Your task to perform on an android device: Go to Yahoo.com Image 0: 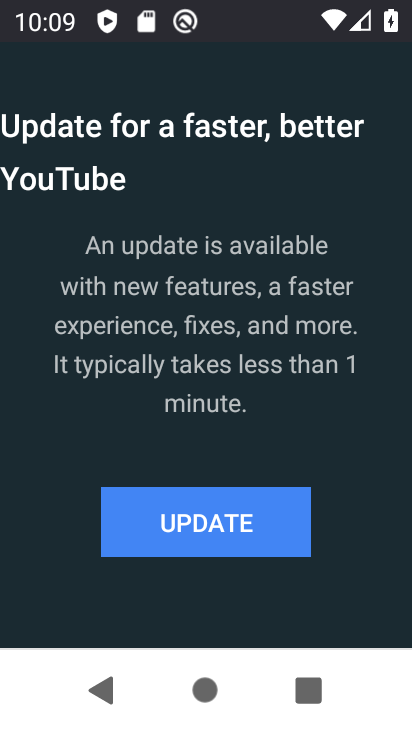
Step 0: press home button
Your task to perform on an android device: Go to Yahoo.com Image 1: 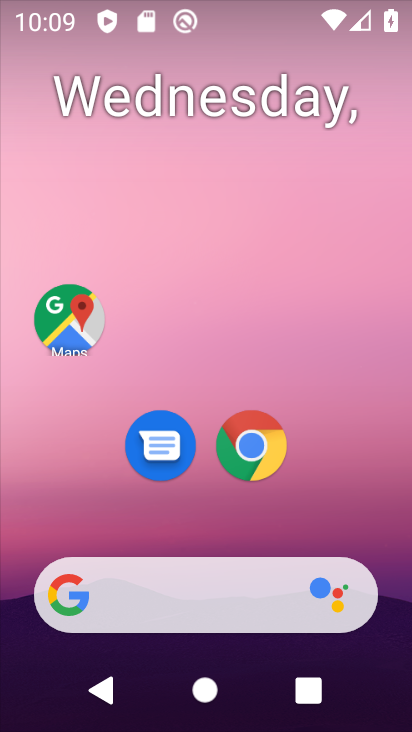
Step 1: click (254, 434)
Your task to perform on an android device: Go to Yahoo.com Image 2: 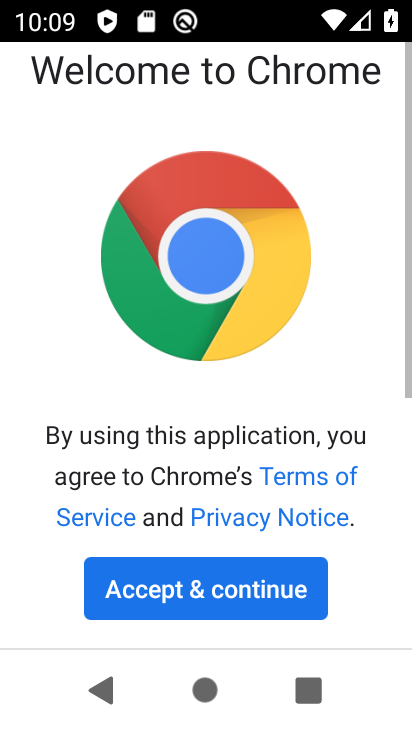
Step 2: click (157, 607)
Your task to perform on an android device: Go to Yahoo.com Image 3: 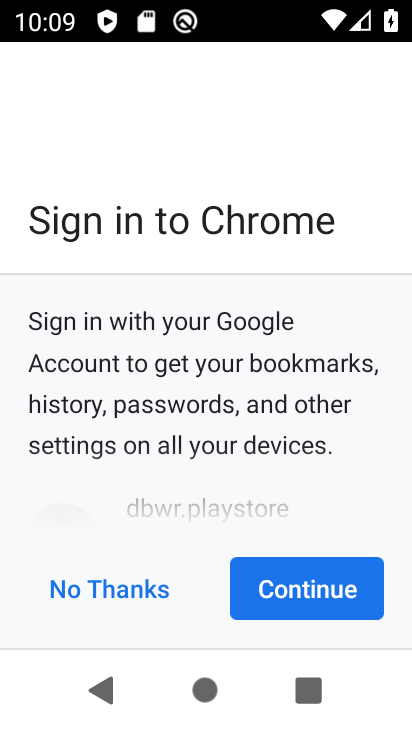
Step 3: click (232, 599)
Your task to perform on an android device: Go to Yahoo.com Image 4: 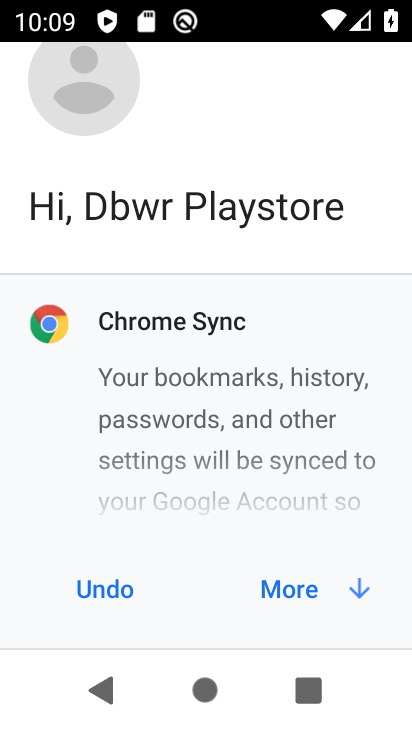
Step 4: click (297, 579)
Your task to perform on an android device: Go to Yahoo.com Image 5: 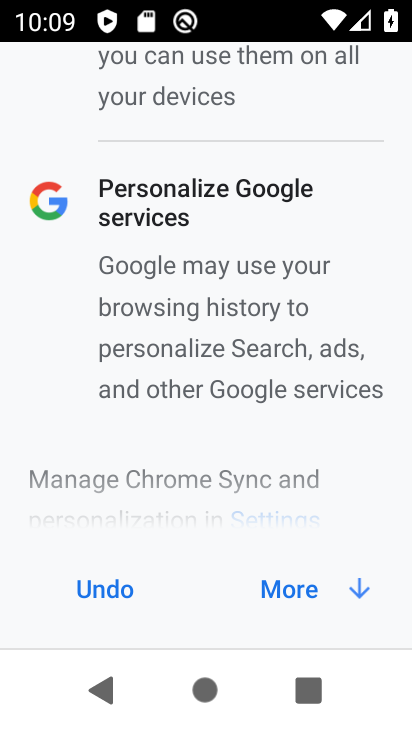
Step 5: click (301, 583)
Your task to perform on an android device: Go to Yahoo.com Image 6: 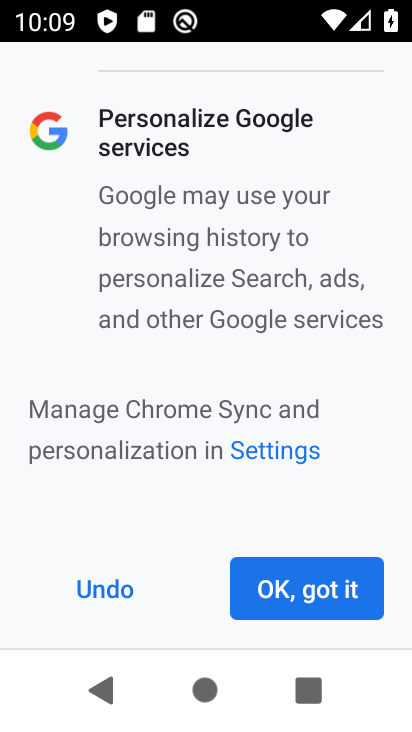
Step 6: click (306, 589)
Your task to perform on an android device: Go to Yahoo.com Image 7: 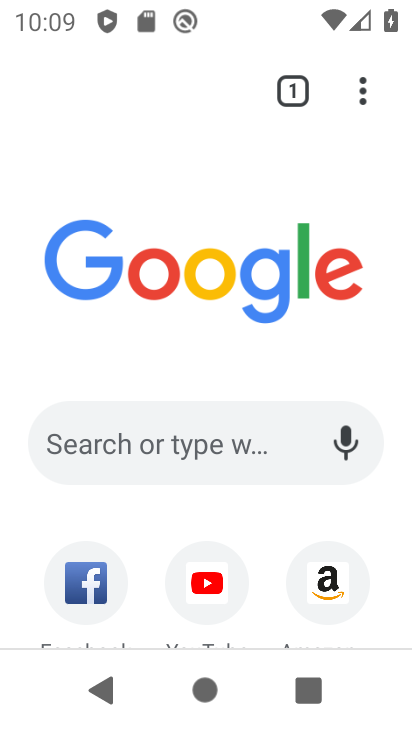
Step 7: drag from (174, 586) to (255, 118)
Your task to perform on an android device: Go to Yahoo.com Image 8: 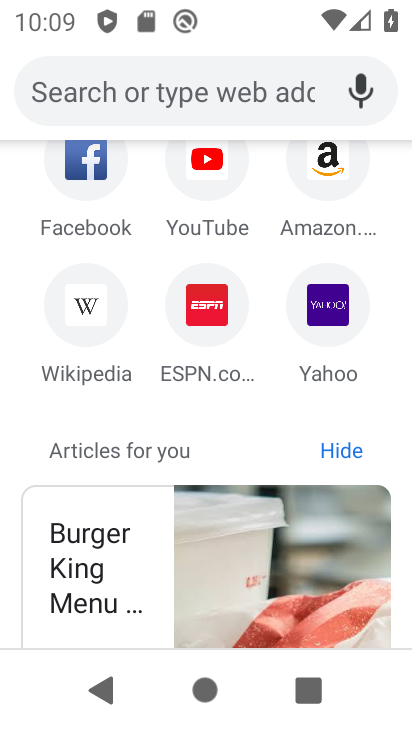
Step 8: click (341, 316)
Your task to perform on an android device: Go to Yahoo.com Image 9: 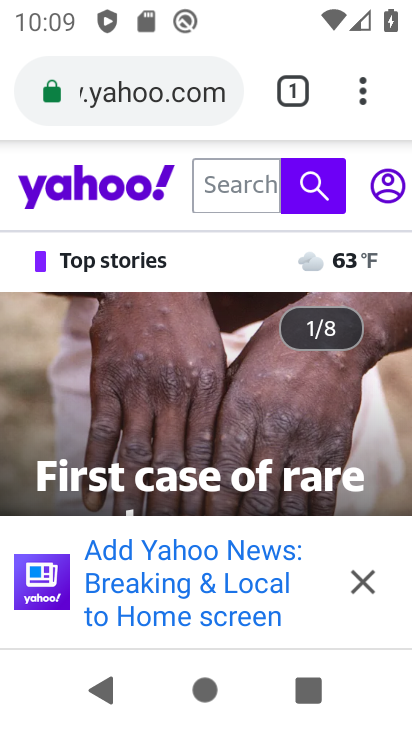
Step 9: task complete